Your task to perform on an android device: create a new album in the google photos Image 0: 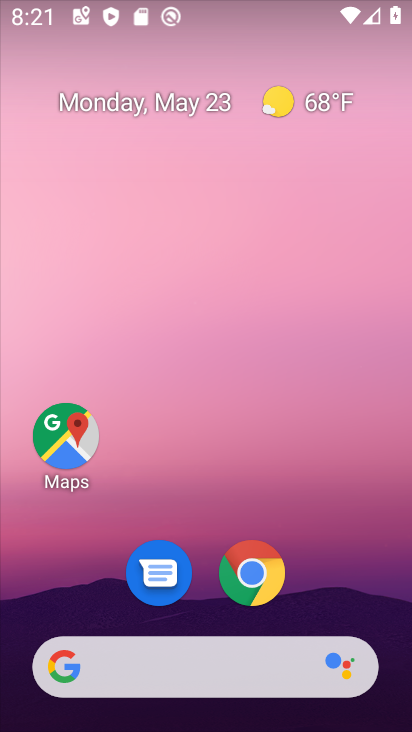
Step 0: drag from (203, 703) to (248, 58)
Your task to perform on an android device: create a new album in the google photos Image 1: 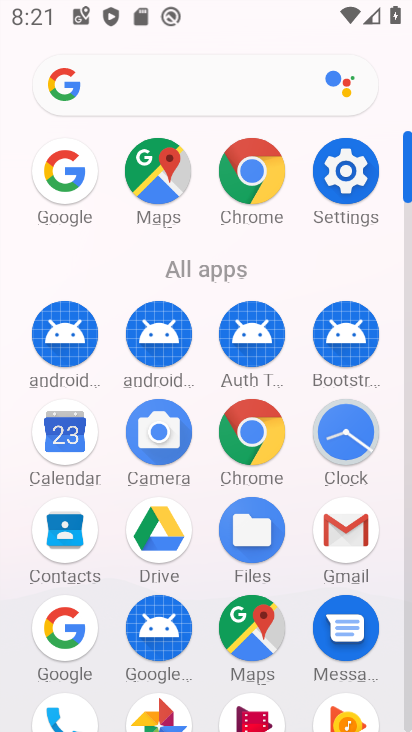
Step 1: click (69, 637)
Your task to perform on an android device: create a new album in the google photos Image 2: 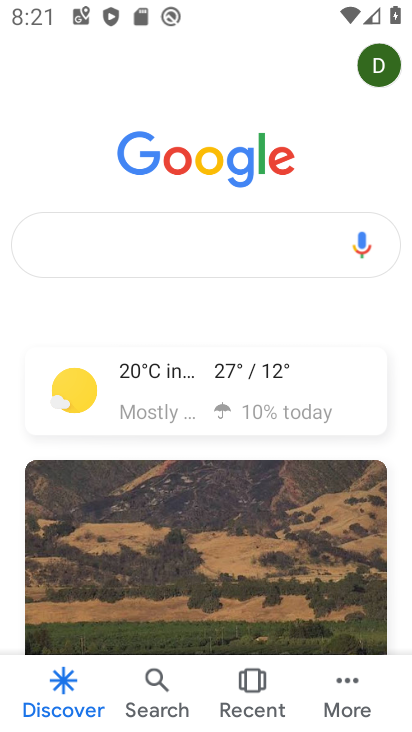
Step 2: press home button
Your task to perform on an android device: create a new album in the google photos Image 3: 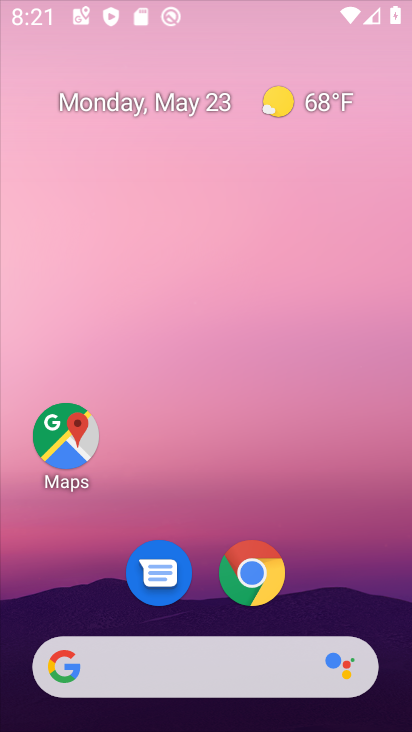
Step 3: drag from (202, 604) to (266, 136)
Your task to perform on an android device: create a new album in the google photos Image 4: 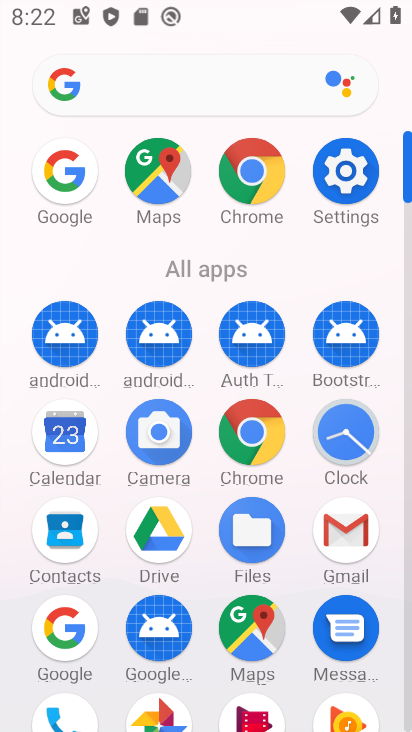
Step 4: drag from (280, 534) to (295, 161)
Your task to perform on an android device: create a new album in the google photos Image 5: 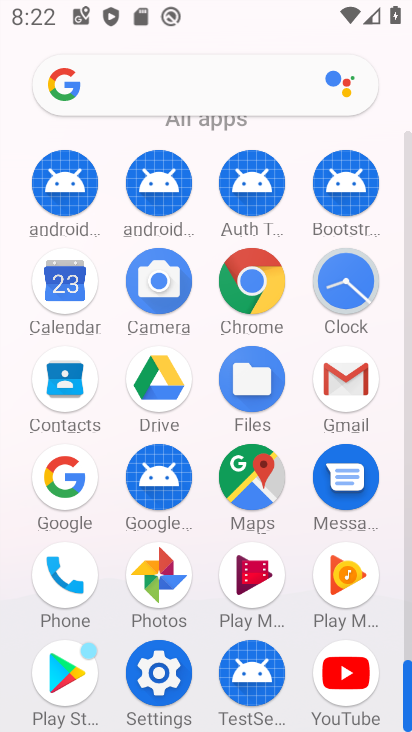
Step 5: click (161, 576)
Your task to perform on an android device: create a new album in the google photos Image 6: 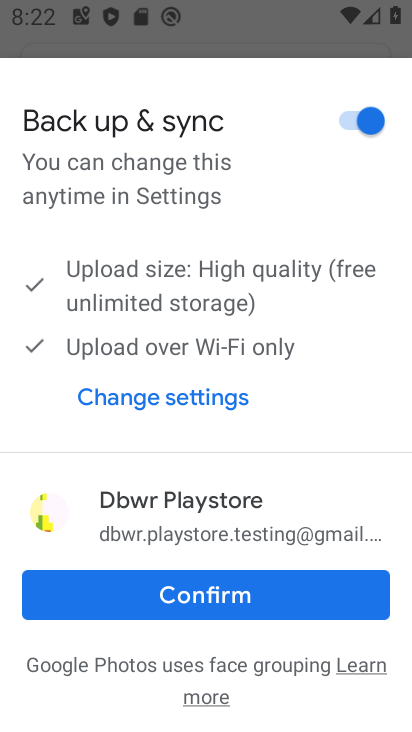
Step 6: click (309, 607)
Your task to perform on an android device: create a new album in the google photos Image 7: 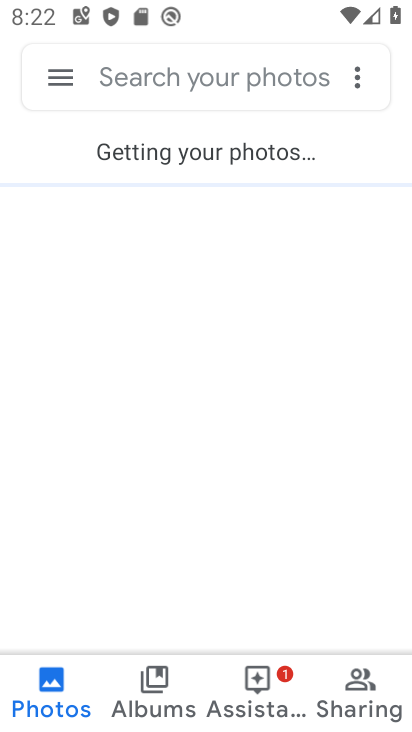
Step 7: click (164, 687)
Your task to perform on an android device: create a new album in the google photos Image 8: 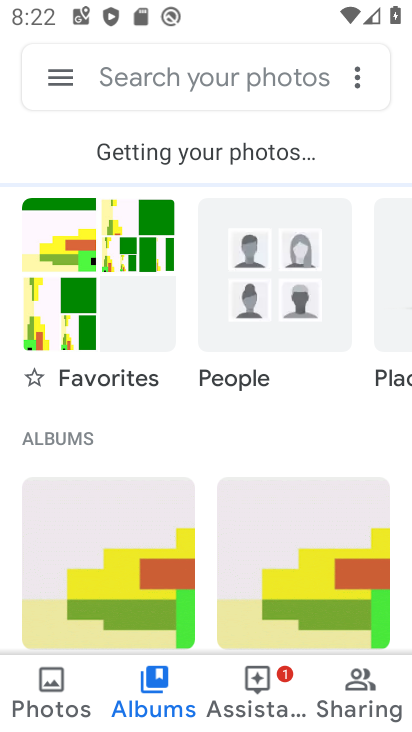
Step 8: task complete